Your task to perform on an android device: toggle location history Image 0: 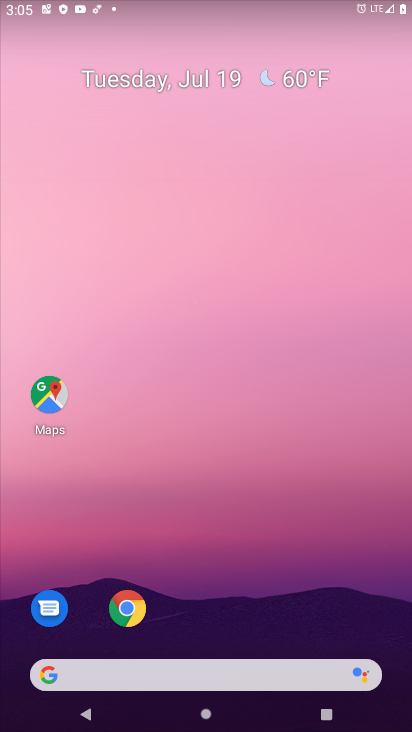
Step 0: drag from (258, 551) to (194, 63)
Your task to perform on an android device: toggle location history Image 1: 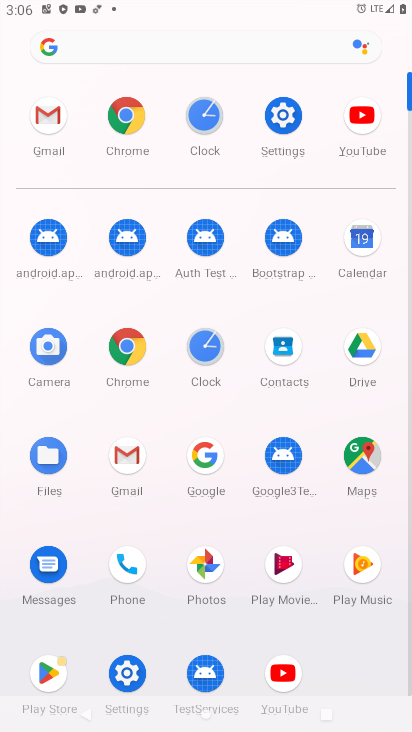
Step 1: click (290, 119)
Your task to perform on an android device: toggle location history Image 2: 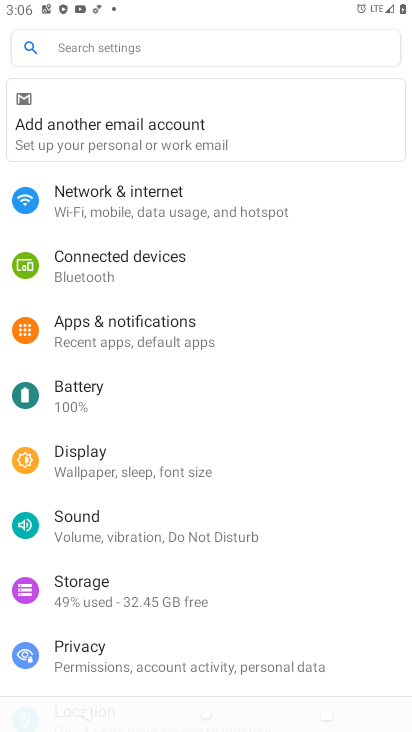
Step 2: drag from (126, 606) to (164, 235)
Your task to perform on an android device: toggle location history Image 3: 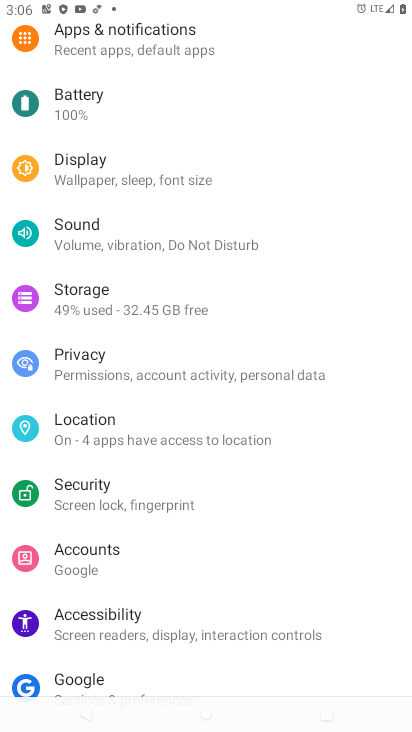
Step 3: click (85, 434)
Your task to perform on an android device: toggle location history Image 4: 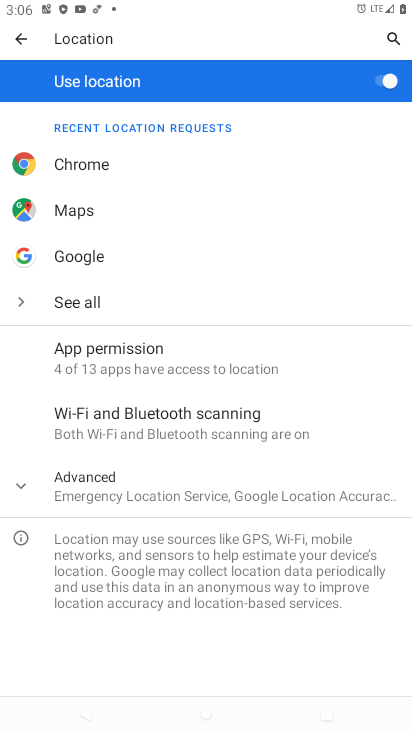
Step 4: click (111, 484)
Your task to perform on an android device: toggle location history Image 5: 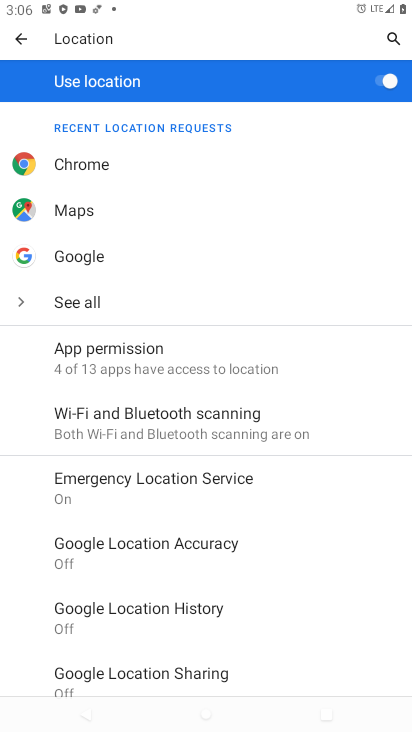
Step 5: click (160, 614)
Your task to perform on an android device: toggle location history Image 6: 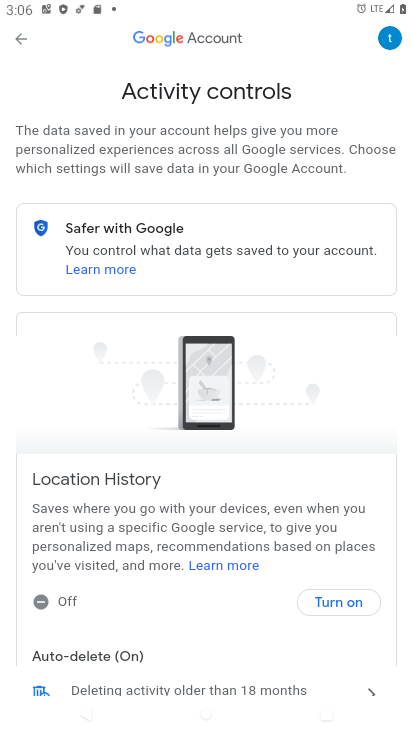
Step 6: click (342, 602)
Your task to perform on an android device: toggle location history Image 7: 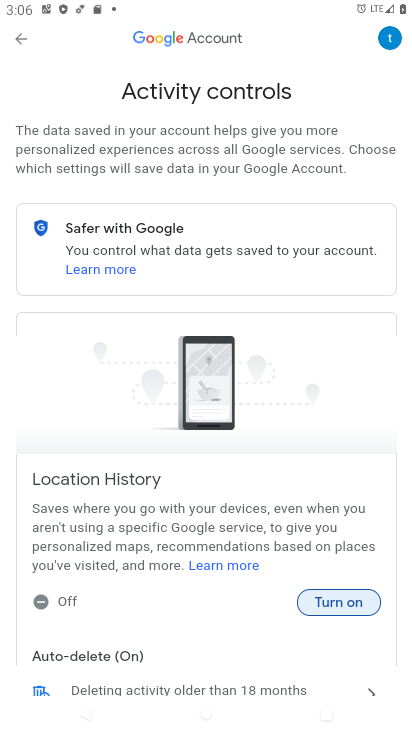
Step 7: click (329, 597)
Your task to perform on an android device: toggle location history Image 8: 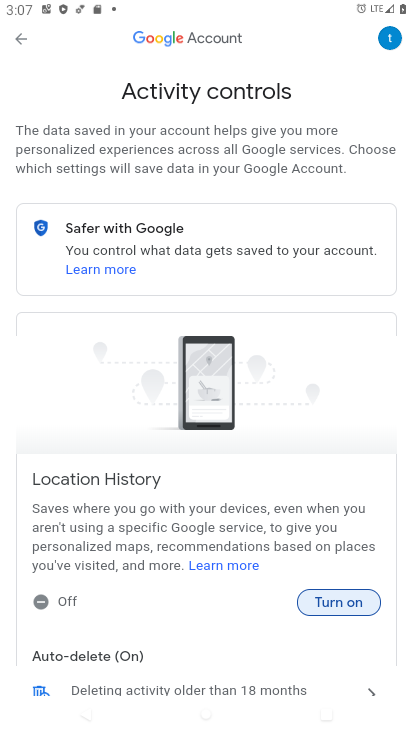
Step 8: click (329, 597)
Your task to perform on an android device: toggle location history Image 9: 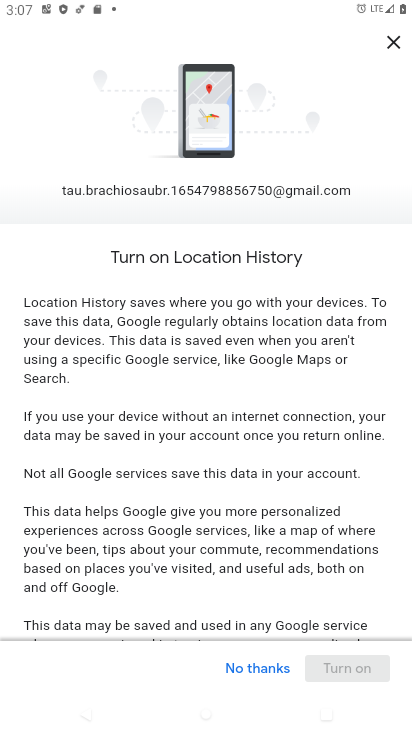
Step 9: drag from (280, 565) to (196, 94)
Your task to perform on an android device: toggle location history Image 10: 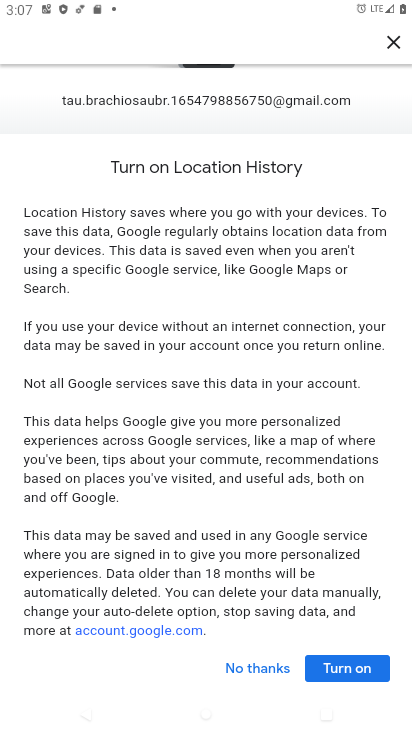
Step 10: click (349, 664)
Your task to perform on an android device: toggle location history Image 11: 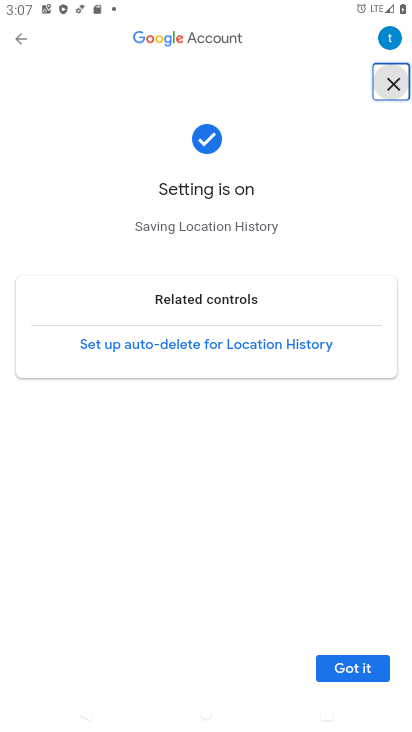
Step 11: click (361, 668)
Your task to perform on an android device: toggle location history Image 12: 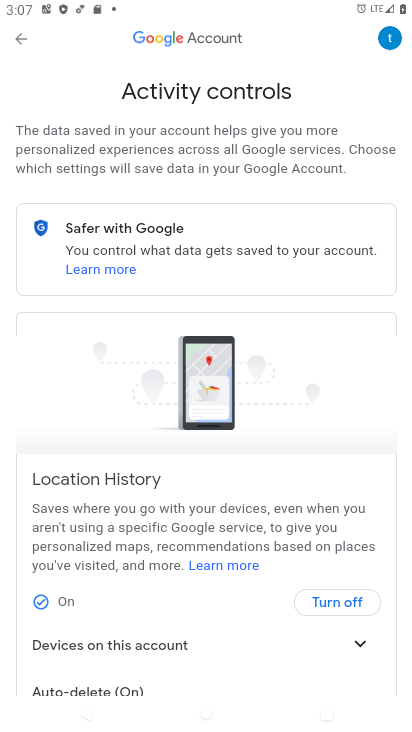
Step 12: task complete